Your task to perform on an android device: Open the Play Movies app and select the watchlist tab. Image 0: 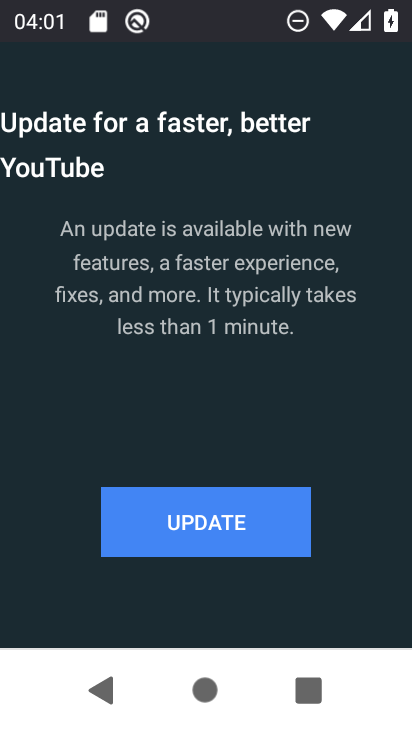
Step 0: press home button
Your task to perform on an android device: Open the Play Movies app and select the watchlist tab. Image 1: 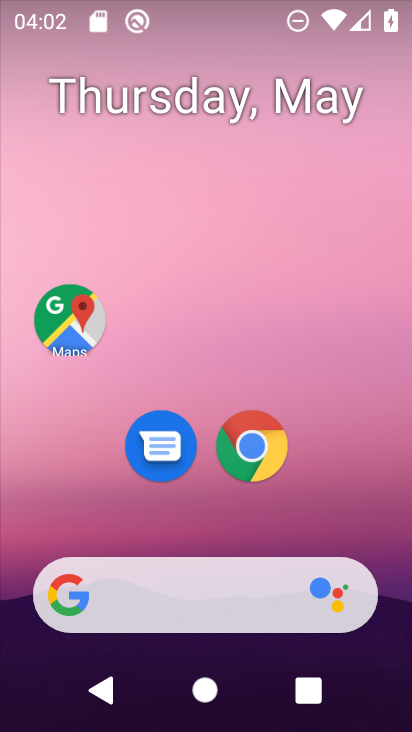
Step 1: drag from (357, 553) to (302, 2)
Your task to perform on an android device: Open the Play Movies app and select the watchlist tab. Image 2: 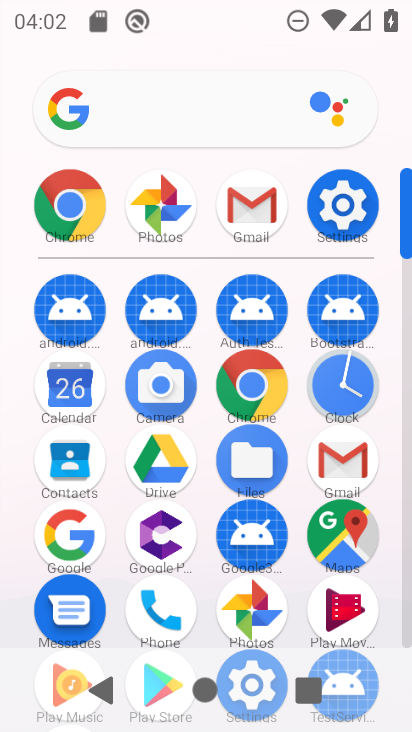
Step 2: click (350, 611)
Your task to perform on an android device: Open the Play Movies app and select the watchlist tab. Image 3: 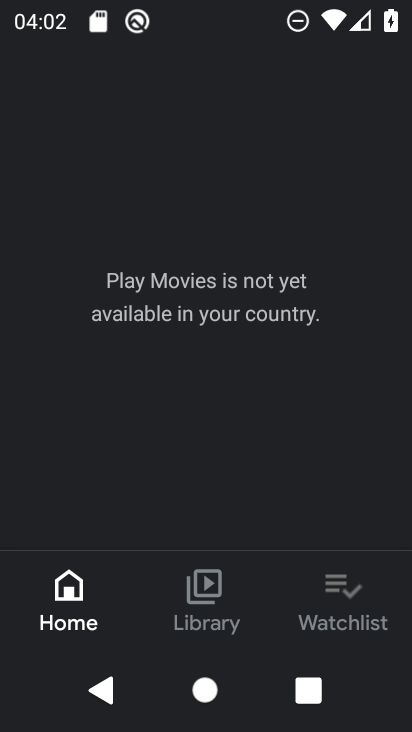
Step 3: click (363, 618)
Your task to perform on an android device: Open the Play Movies app and select the watchlist tab. Image 4: 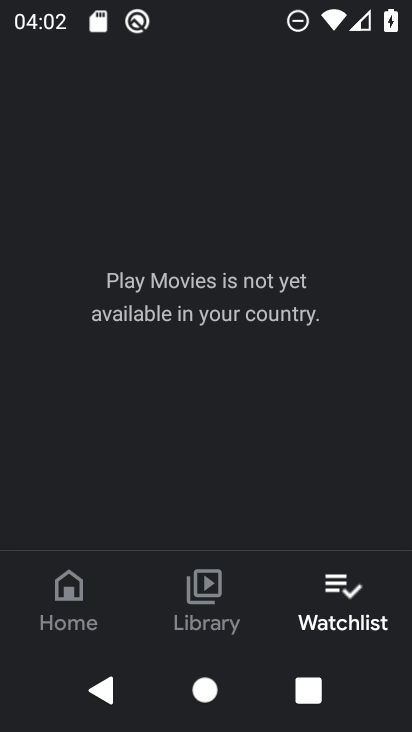
Step 4: task complete